Your task to perform on an android device: turn off location Image 0: 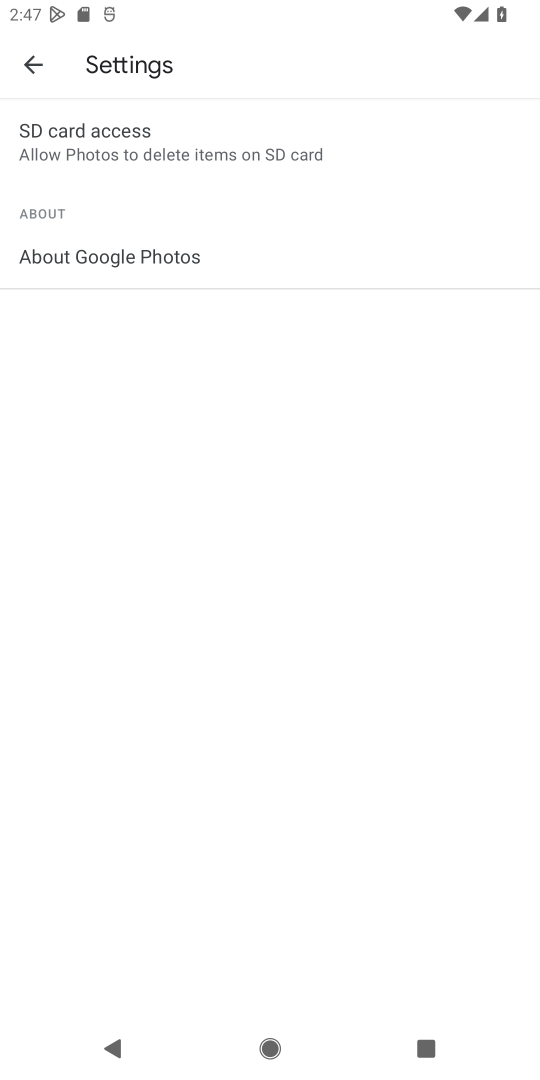
Step 0: press home button
Your task to perform on an android device: turn off location Image 1: 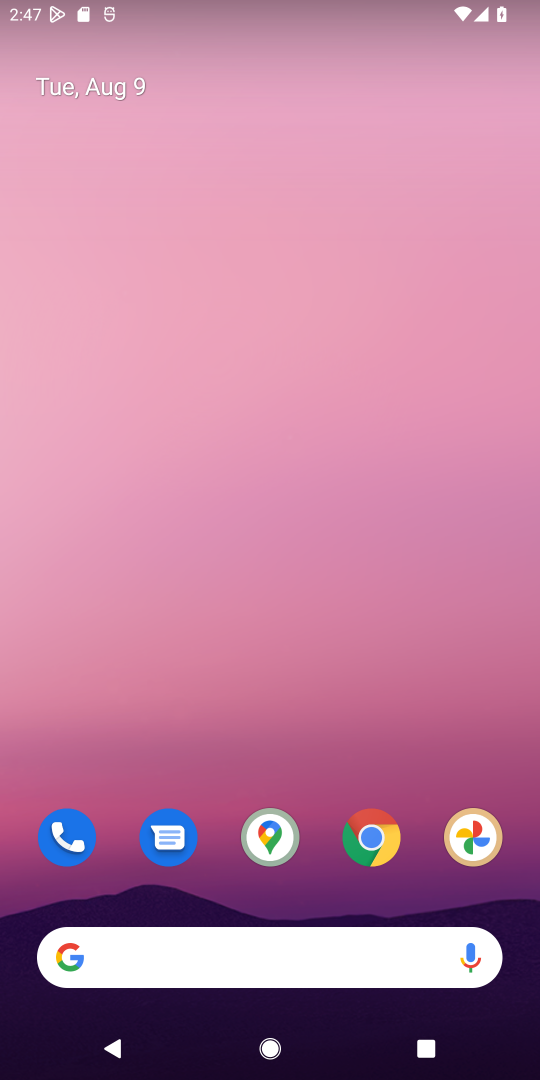
Step 1: drag from (245, 884) to (337, 219)
Your task to perform on an android device: turn off location Image 2: 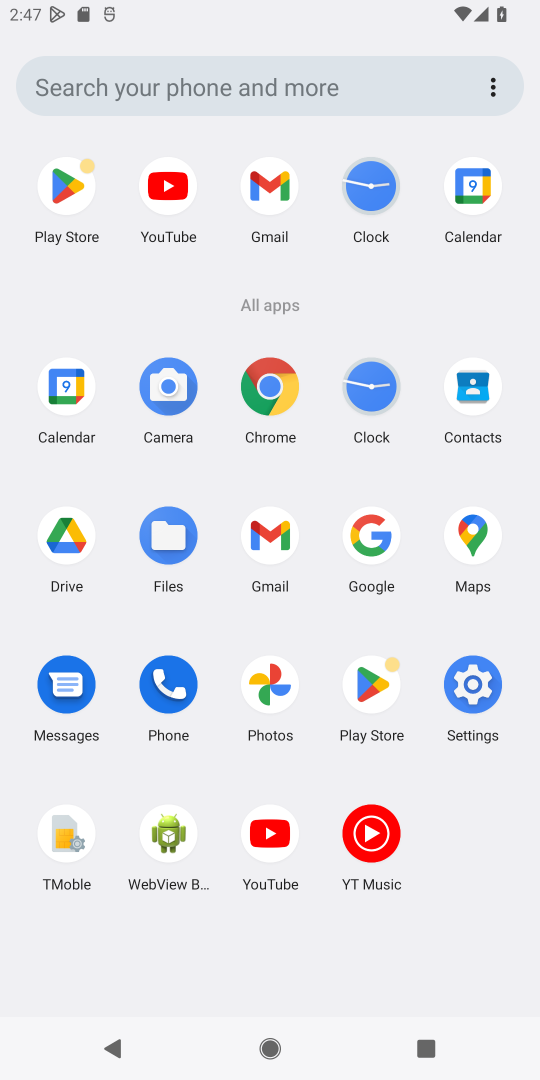
Step 2: click (451, 674)
Your task to perform on an android device: turn off location Image 3: 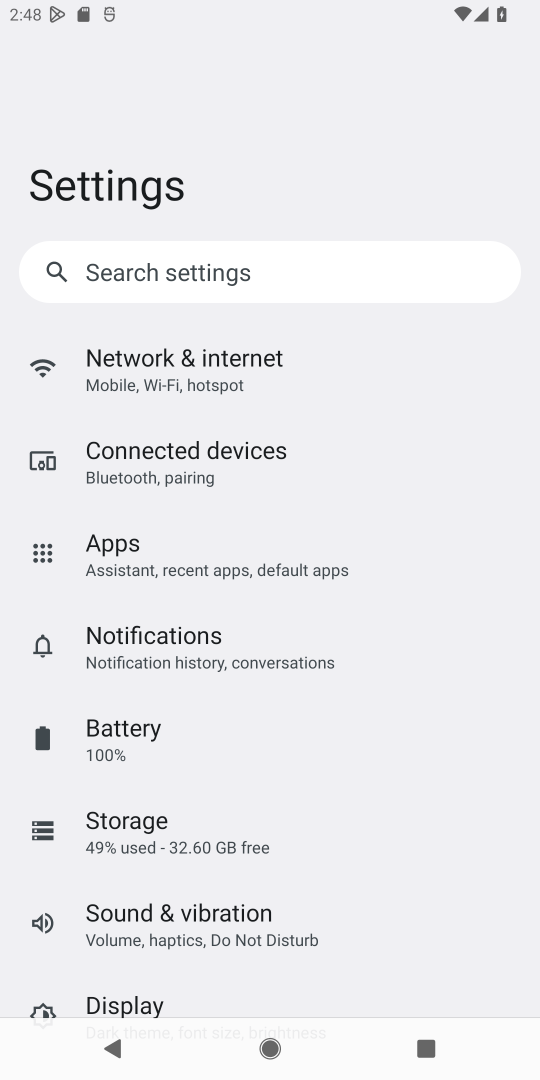
Step 3: drag from (165, 894) to (236, 316)
Your task to perform on an android device: turn off location Image 4: 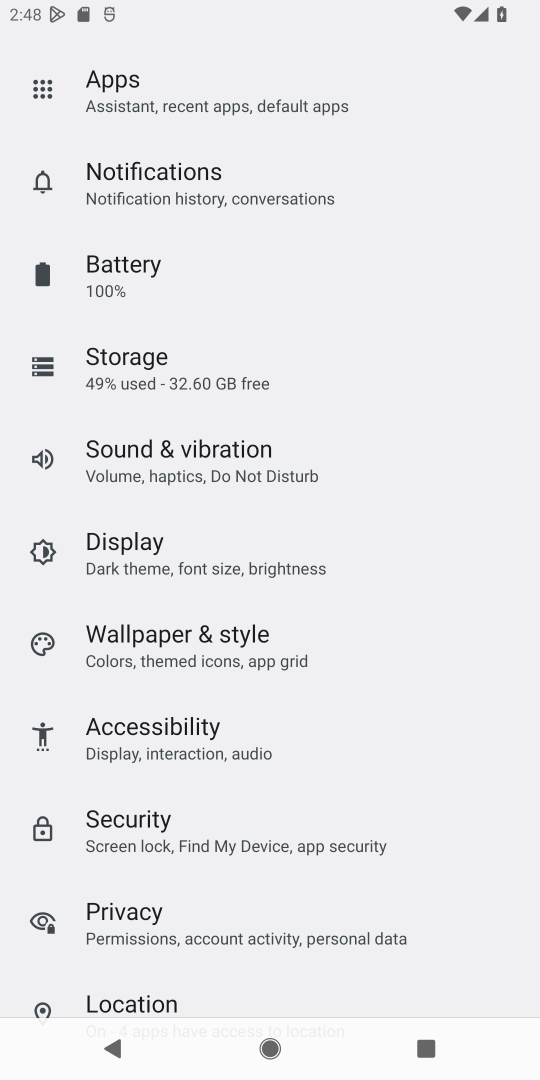
Step 4: drag from (135, 866) to (239, 272)
Your task to perform on an android device: turn off location Image 5: 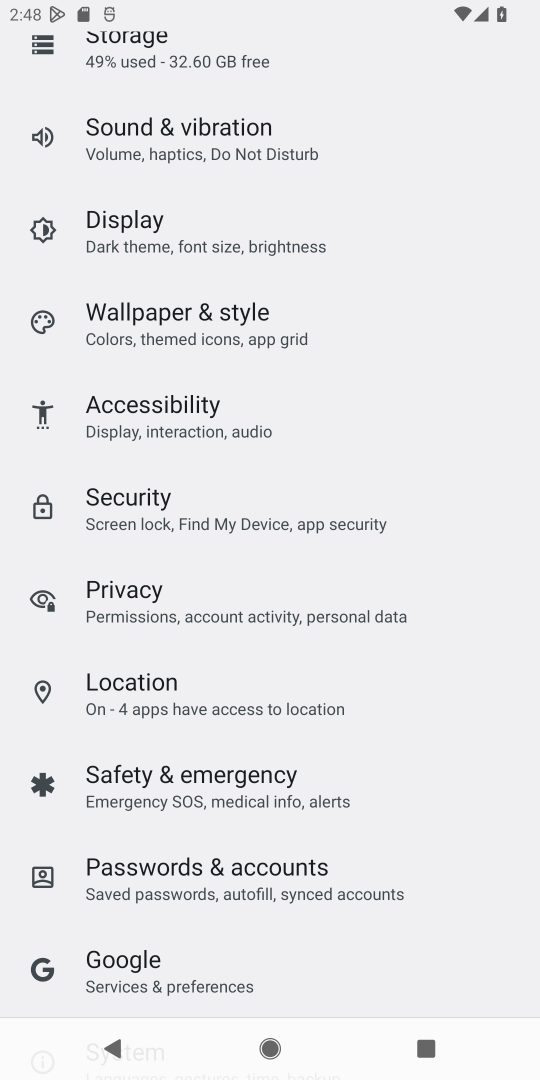
Step 5: click (117, 669)
Your task to perform on an android device: turn off location Image 6: 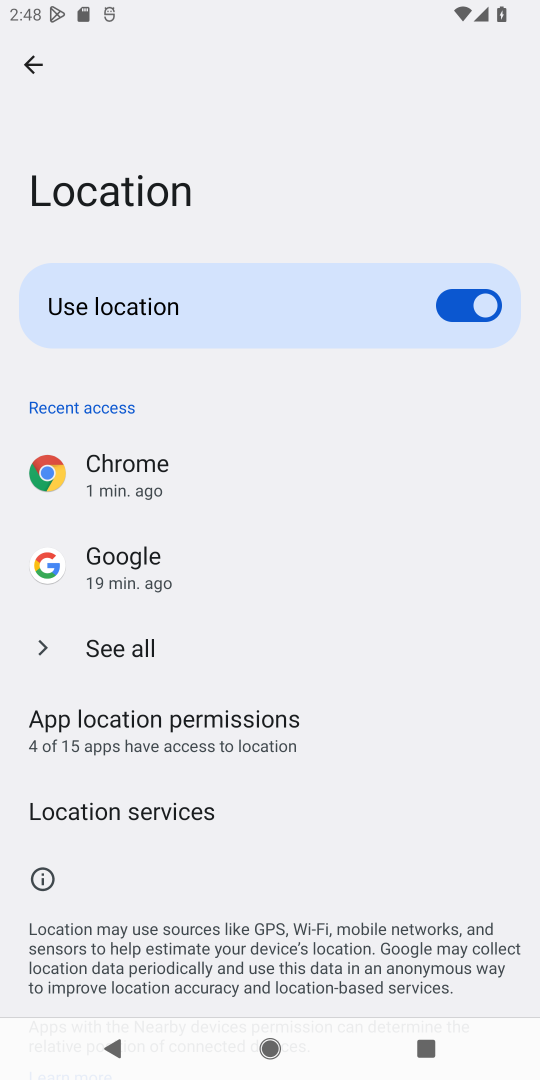
Step 6: click (446, 300)
Your task to perform on an android device: turn off location Image 7: 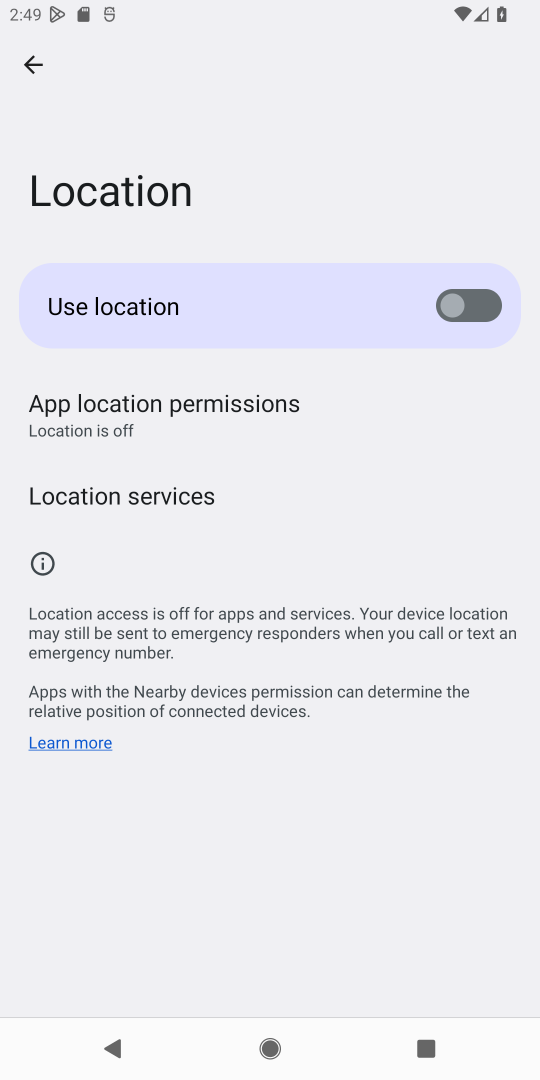
Step 7: task complete